Your task to perform on an android device: Go to ESPN.com Image 0: 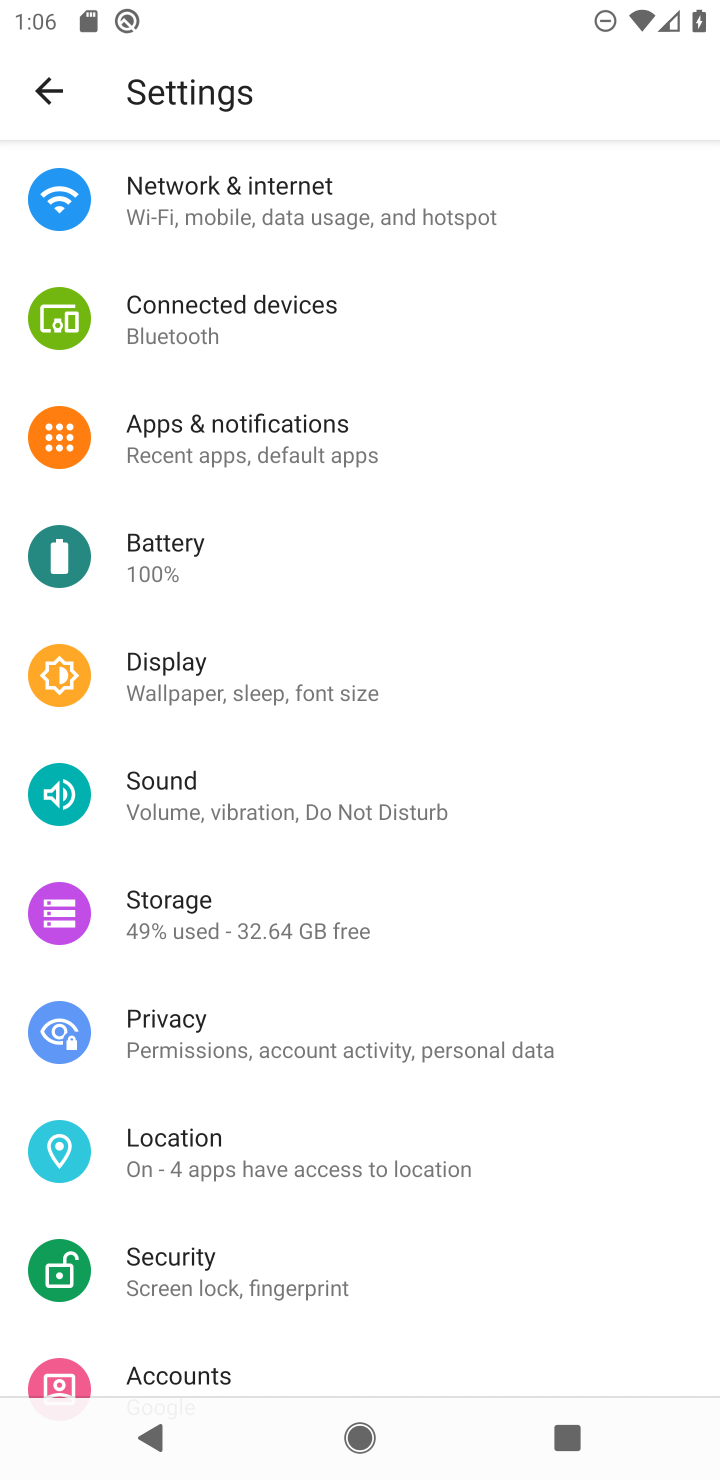
Step 0: press home button
Your task to perform on an android device: Go to ESPN.com Image 1: 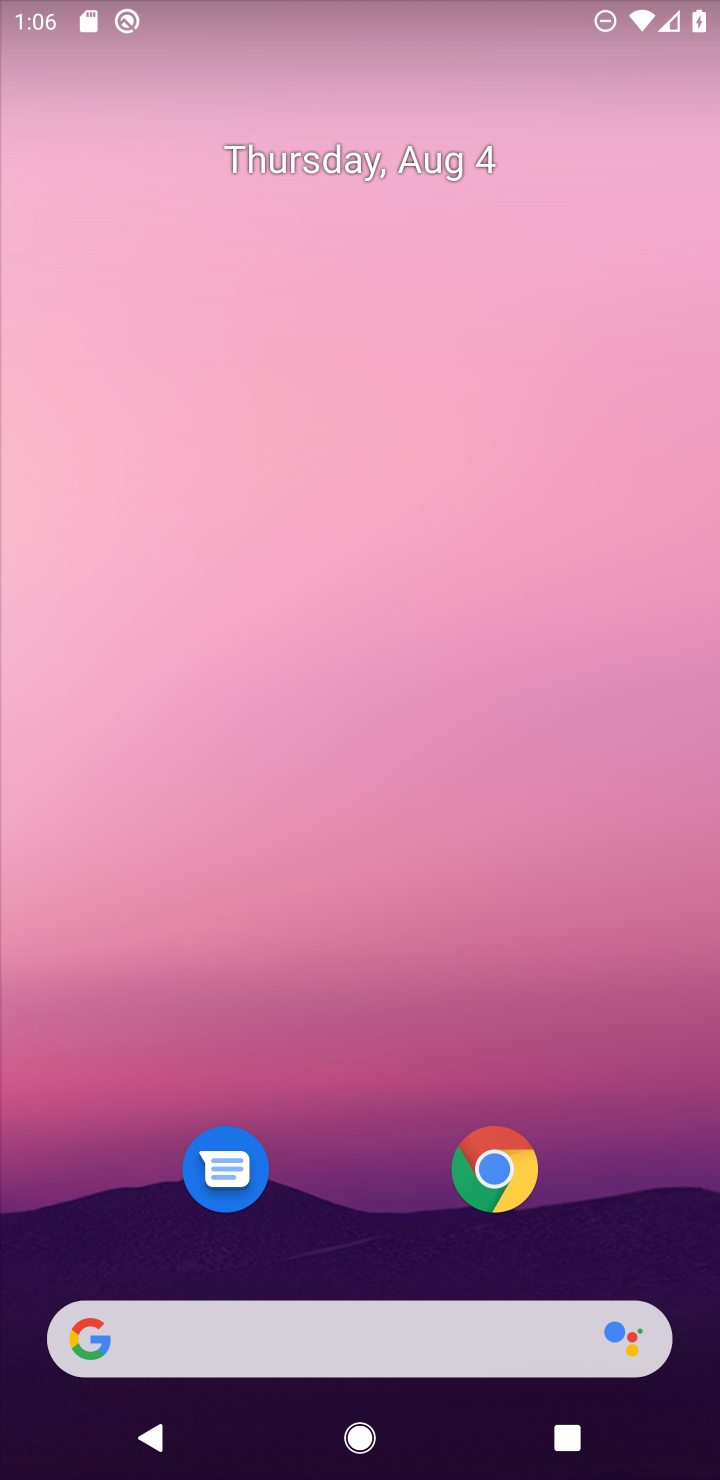
Step 1: click (498, 1179)
Your task to perform on an android device: Go to ESPN.com Image 2: 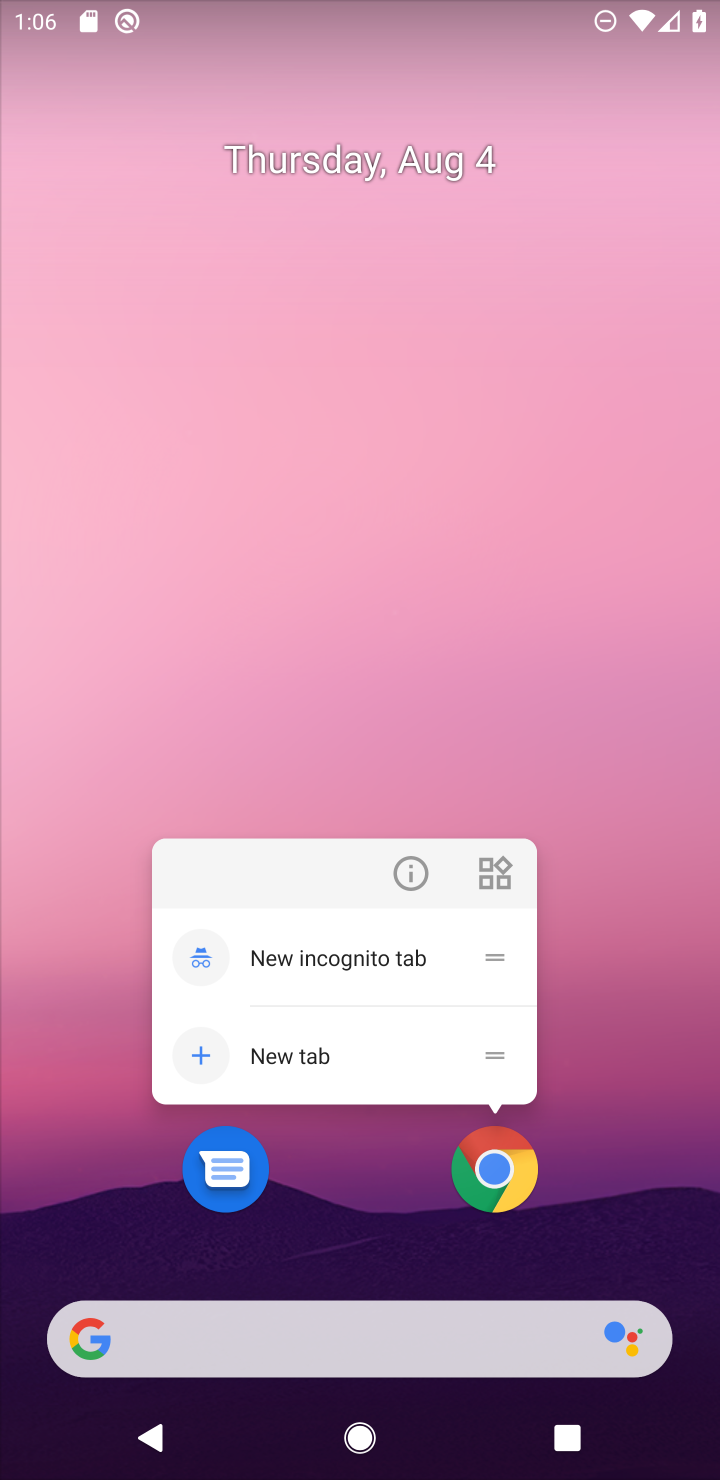
Step 2: click (498, 1179)
Your task to perform on an android device: Go to ESPN.com Image 3: 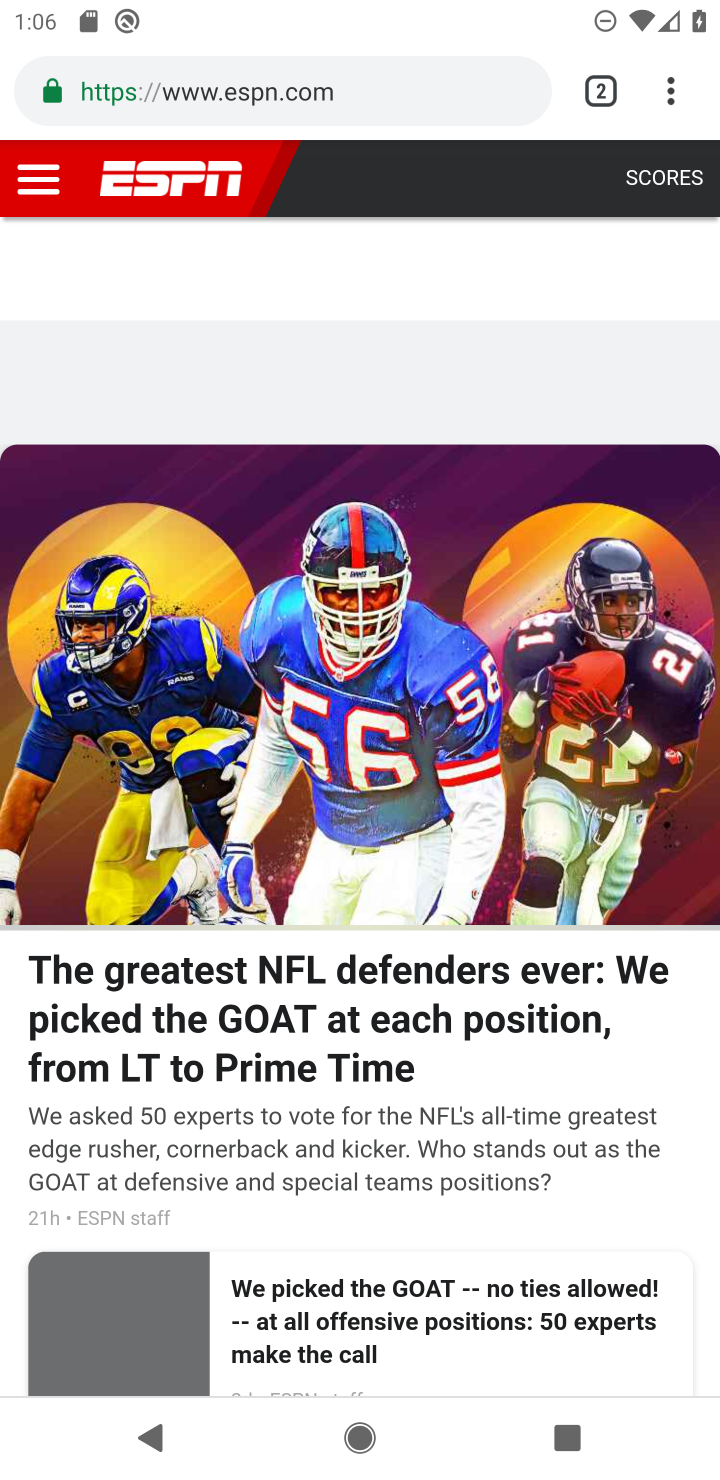
Step 3: task complete